Your task to perform on an android device: Go to Yahoo.com Image 0: 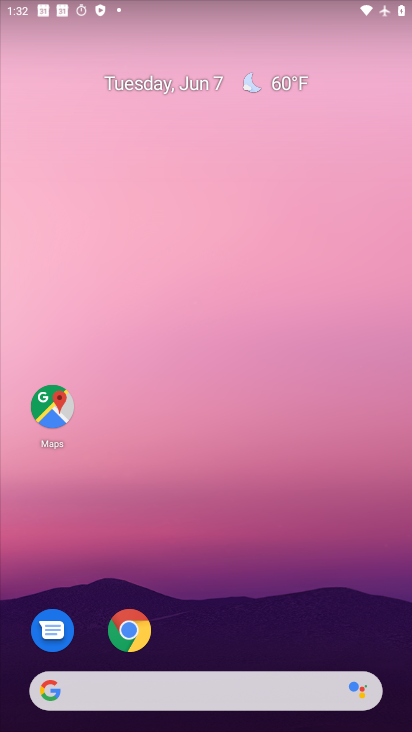
Step 0: drag from (325, 607) to (166, 9)
Your task to perform on an android device: Go to Yahoo.com Image 1: 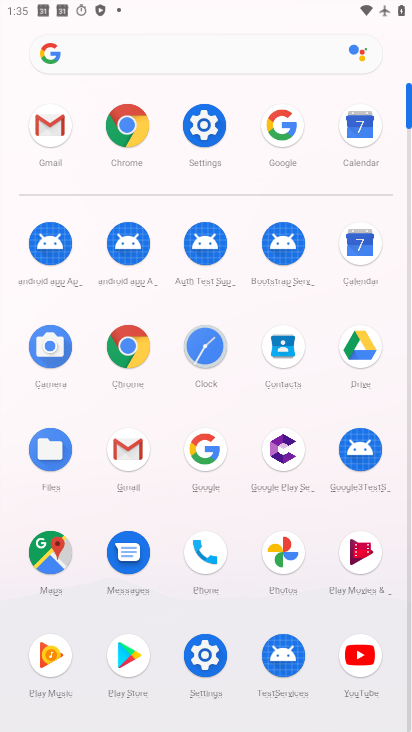
Step 1: click (196, 440)
Your task to perform on an android device: Go to Yahoo.com Image 2: 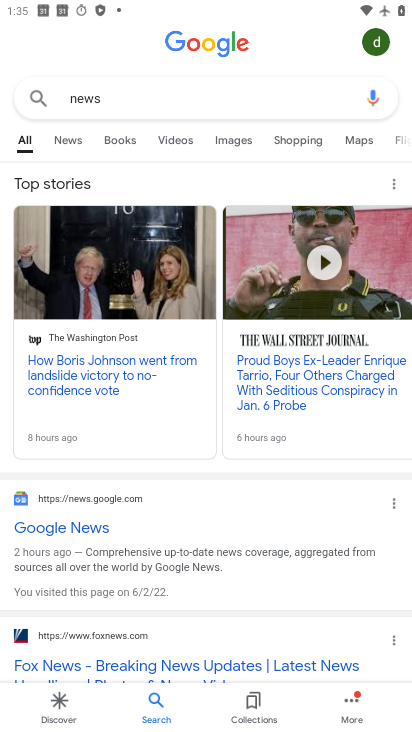
Step 2: press back button
Your task to perform on an android device: Go to Yahoo.com Image 3: 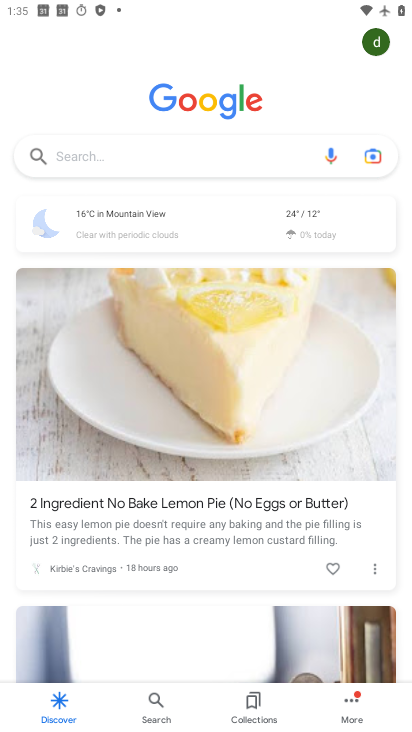
Step 3: click (147, 141)
Your task to perform on an android device: Go to Yahoo.com Image 4: 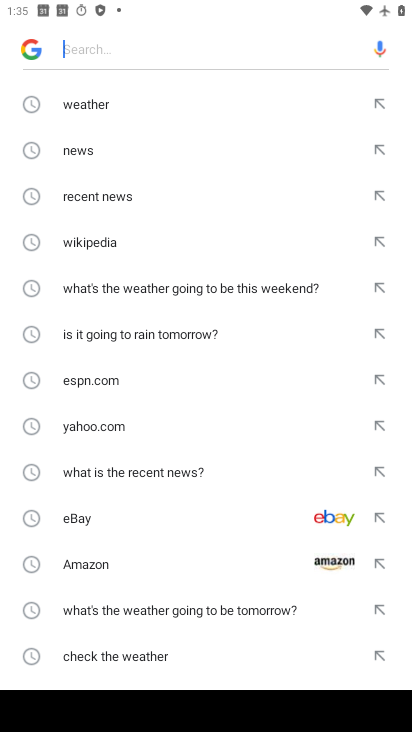
Step 4: click (93, 426)
Your task to perform on an android device: Go to Yahoo.com Image 5: 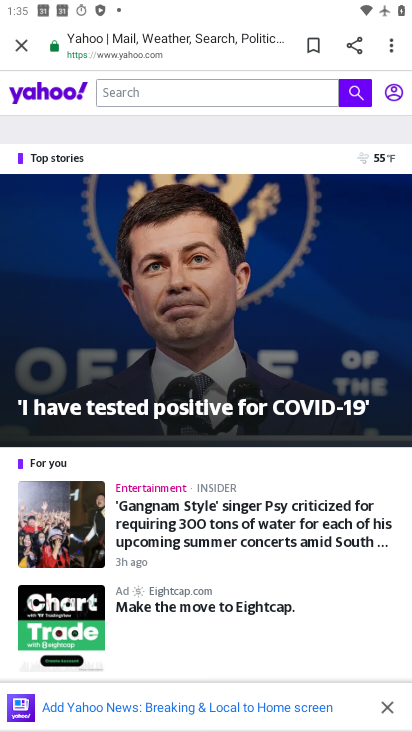
Step 5: task complete